Your task to perform on an android device: change the upload size in google photos Image 0: 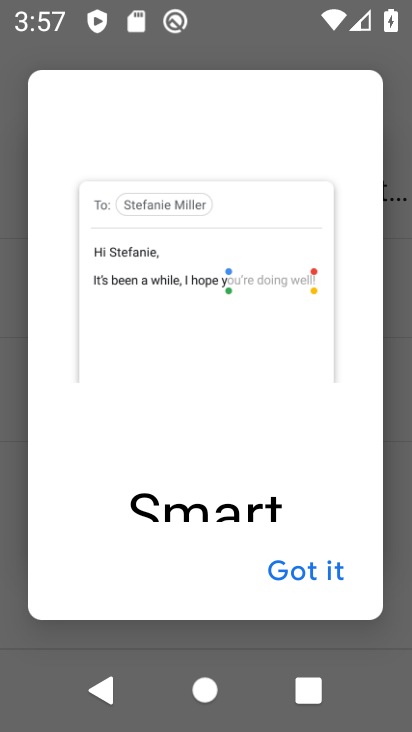
Step 0: press back button
Your task to perform on an android device: change the upload size in google photos Image 1: 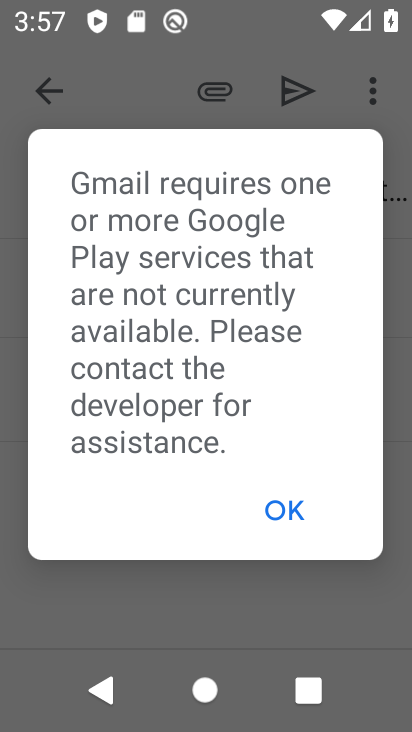
Step 1: press home button
Your task to perform on an android device: change the upload size in google photos Image 2: 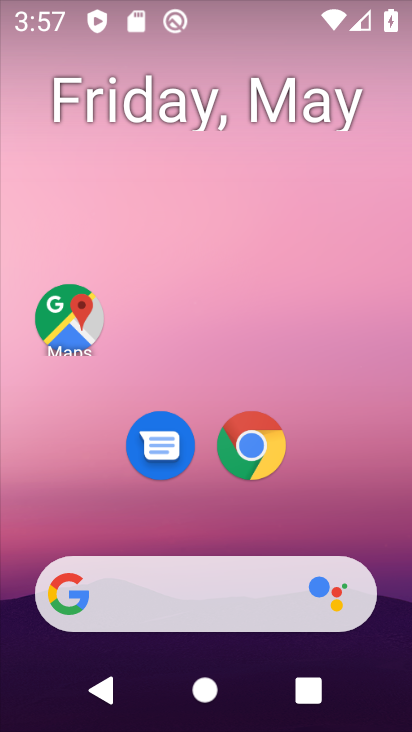
Step 2: drag from (179, 537) to (287, 28)
Your task to perform on an android device: change the upload size in google photos Image 3: 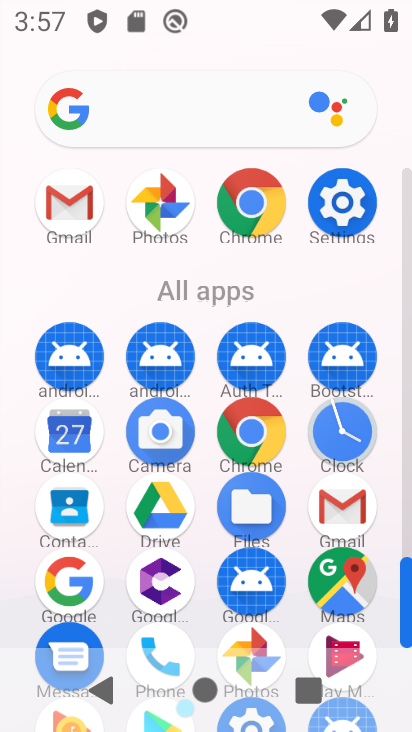
Step 3: drag from (257, 547) to (328, 131)
Your task to perform on an android device: change the upload size in google photos Image 4: 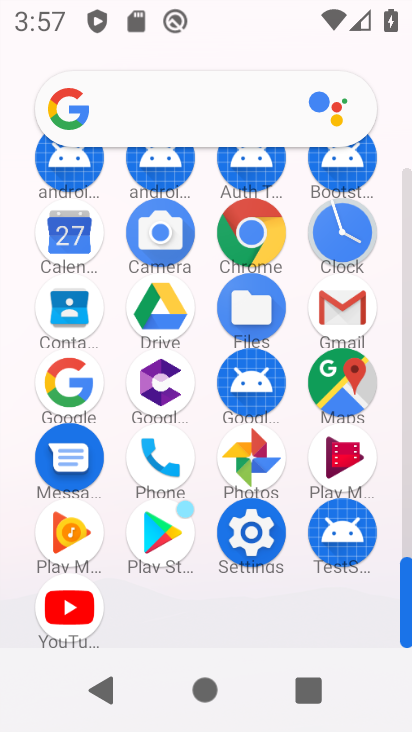
Step 4: click (241, 452)
Your task to perform on an android device: change the upload size in google photos Image 5: 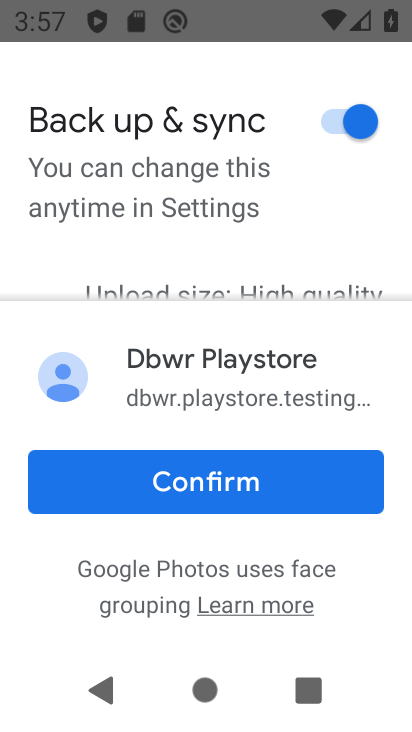
Step 5: click (54, 87)
Your task to perform on an android device: change the upload size in google photos Image 6: 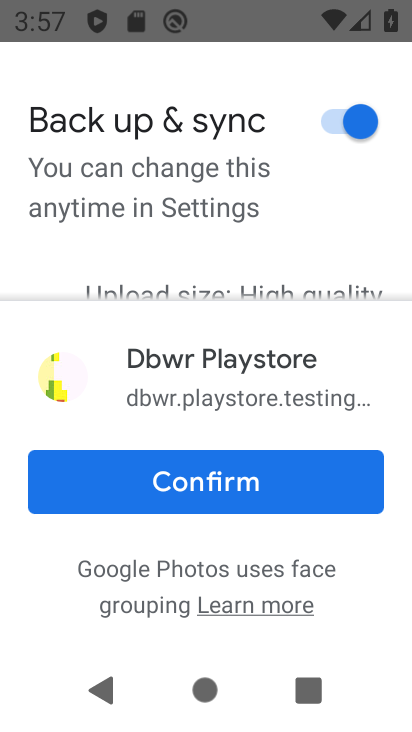
Step 6: click (201, 478)
Your task to perform on an android device: change the upload size in google photos Image 7: 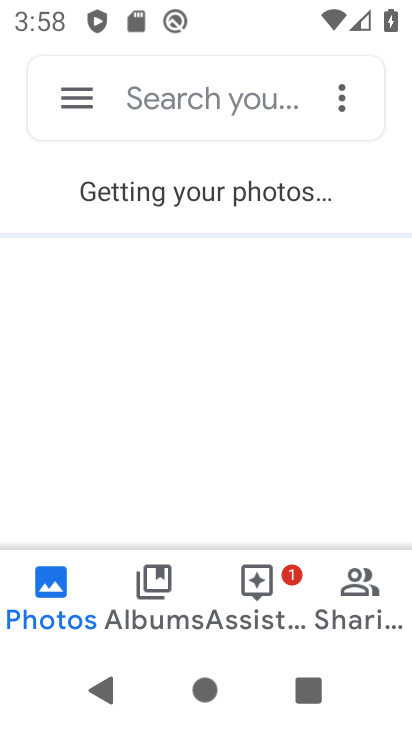
Step 7: click (71, 95)
Your task to perform on an android device: change the upload size in google photos Image 8: 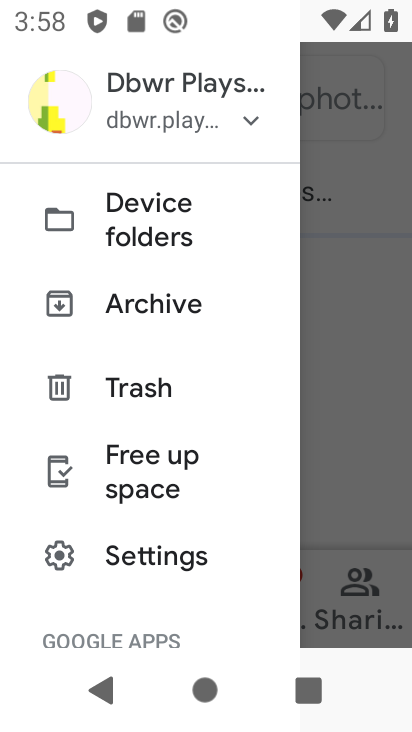
Step 8: click (135, 561)
Your task to perform on an android device: change the upload size in google photos Image 9: 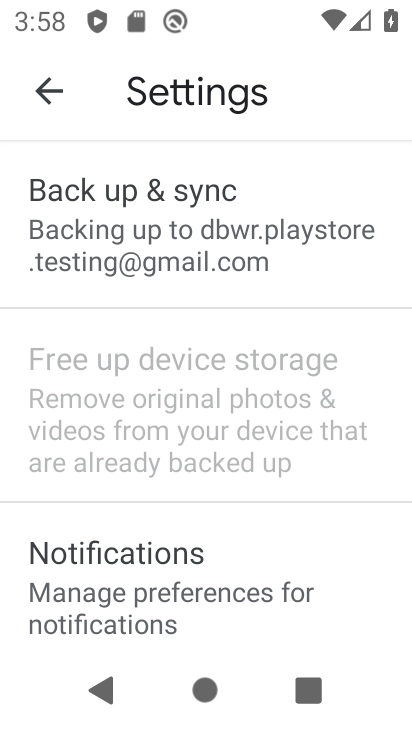
Step 9: click (233, 213)
Your task to perform on an android device: change the upload size in google photos Image 10: 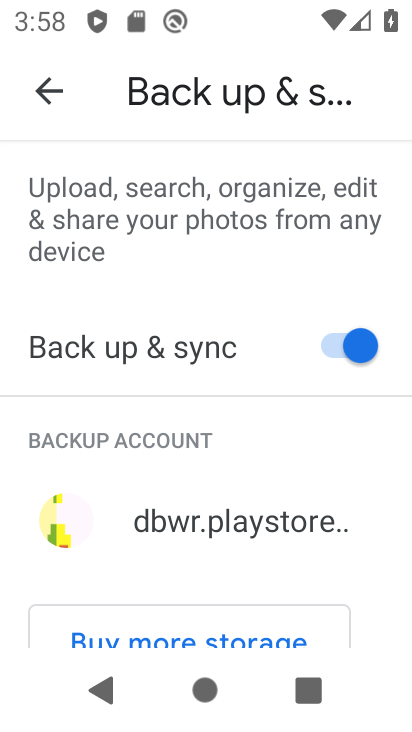
Step 10: drag from (192, 564) to (214, 155)
Your task to perform on an android device: change the upload size in google photos Image 11: 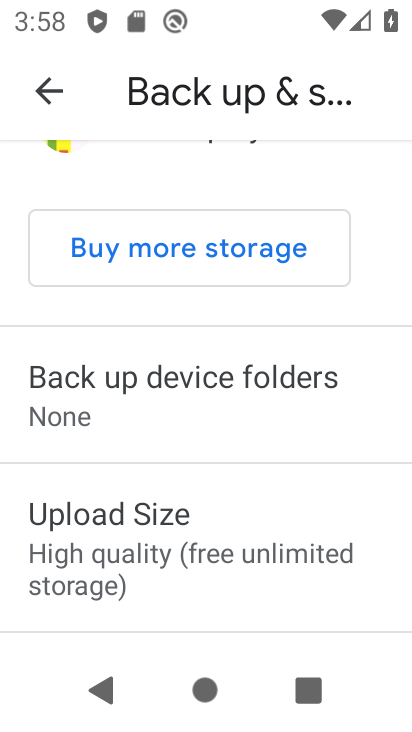
Step 11: click (119, 516)
Your task to perform on an android device: change the upload size in google photos Image 12: 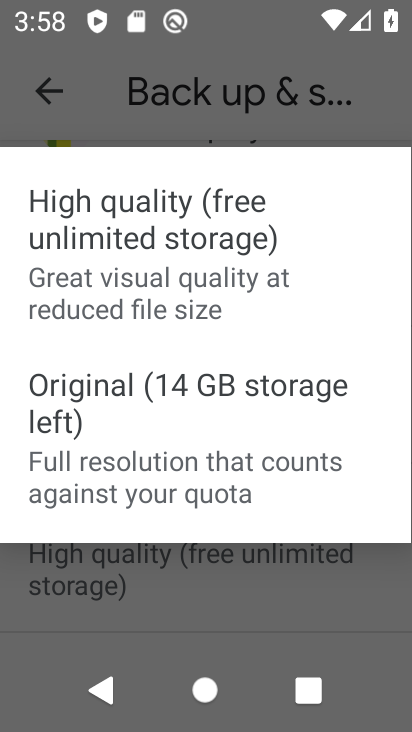
Step 12: click (102, 417)
Your task to perform on an android device: change the upload size in google photos Image 13: 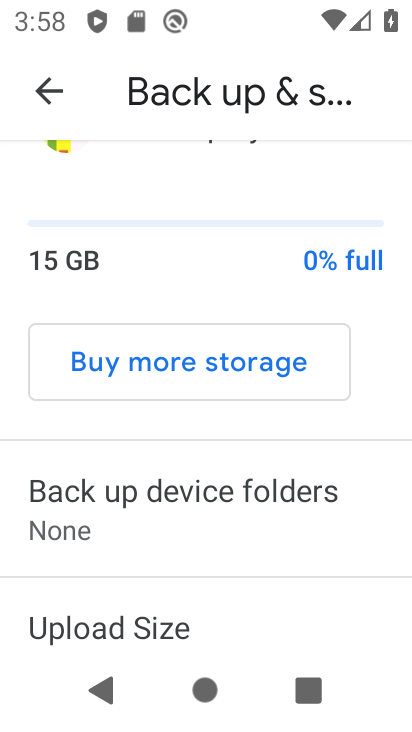
Step 13: task complete